Your task to perform on an android device: Open battery settings Image 0: 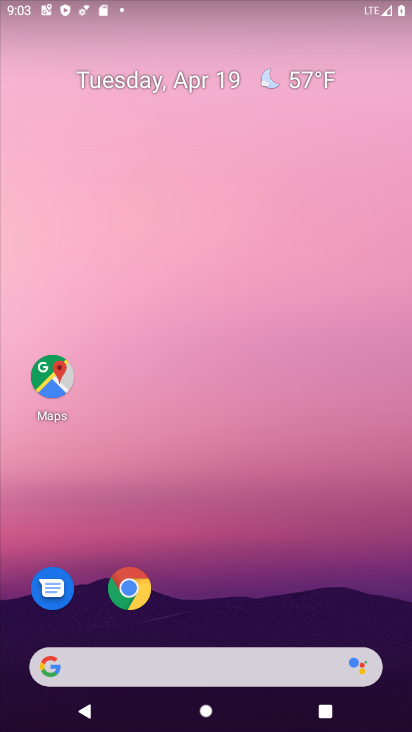
Step 0: drag from (238, 600) to (244, 76)
Your task to perform on an android device: Open battery settings Image 1: 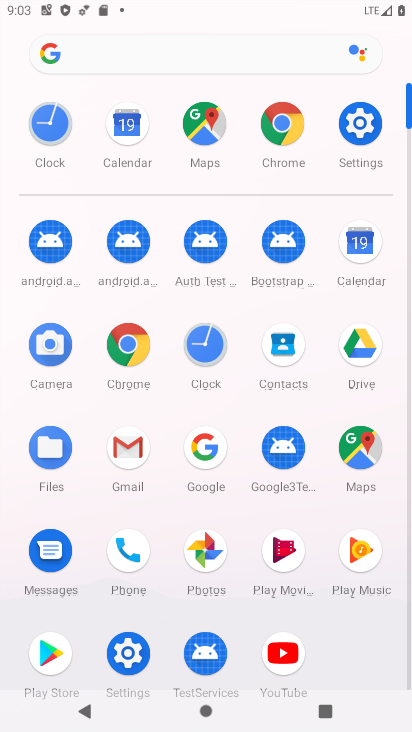
Step 1: click (367, 135)
Your task to perform on an android device: Open battery settings Image 2: 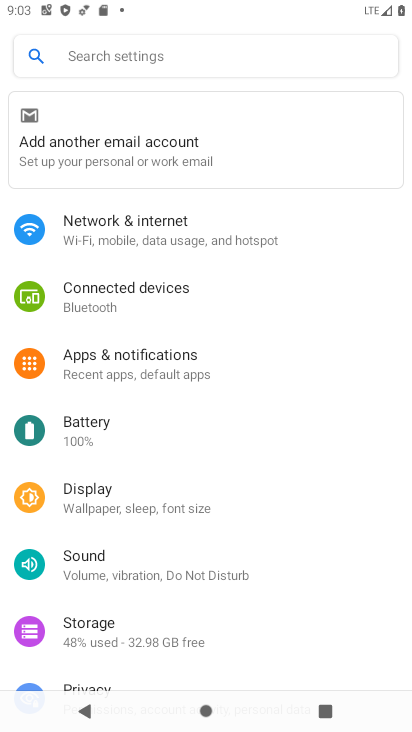
Step 2: click (119, 426)
Your task to perform on an android device: Open battery settings Image 3: 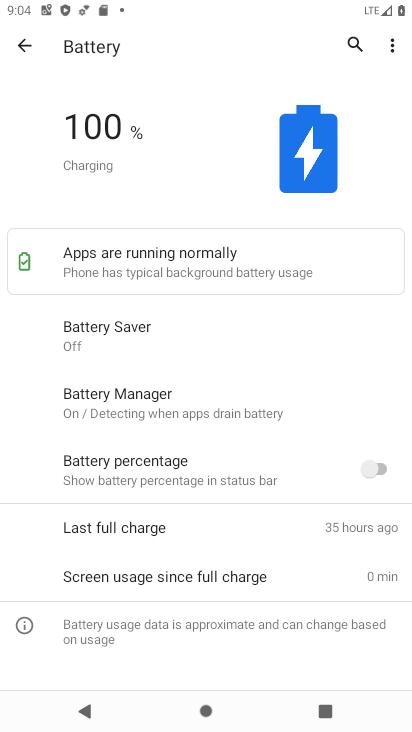
Step 3: task complete